Your task to perform on an android device: change alarm snooze length Image 0: 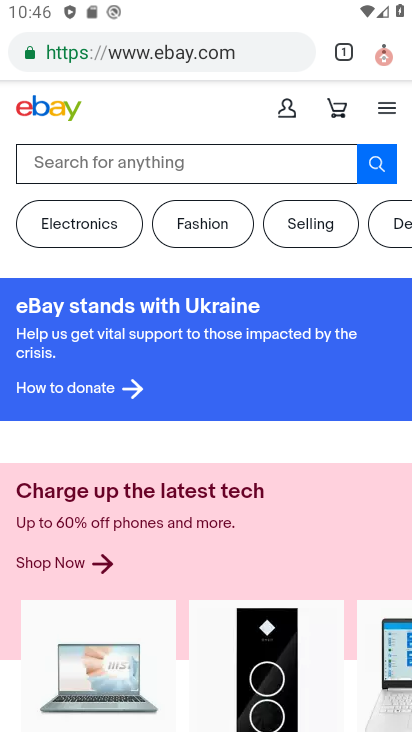
Step 0: press home button
Your task to perform on an android device: change alarm snooze length Image 1: 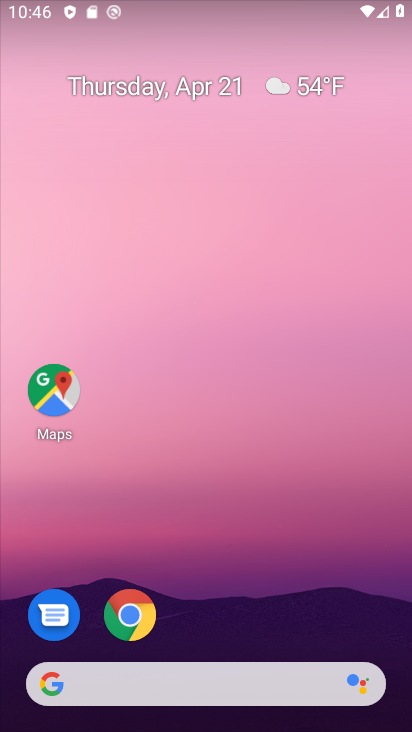
Step 1: drag from (285, 636) to (291, 161)
Your task to perform on an android device: change alarm snooze length Image 2: 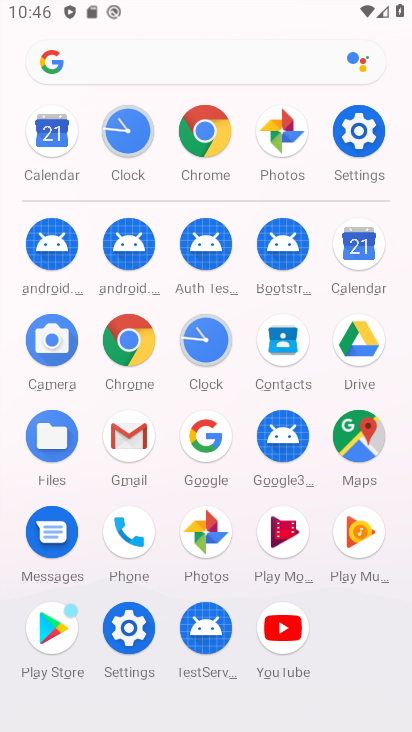
Step 2: click (199, 348)
Your task to perform on an android device: change alarm snooze length Image 3: 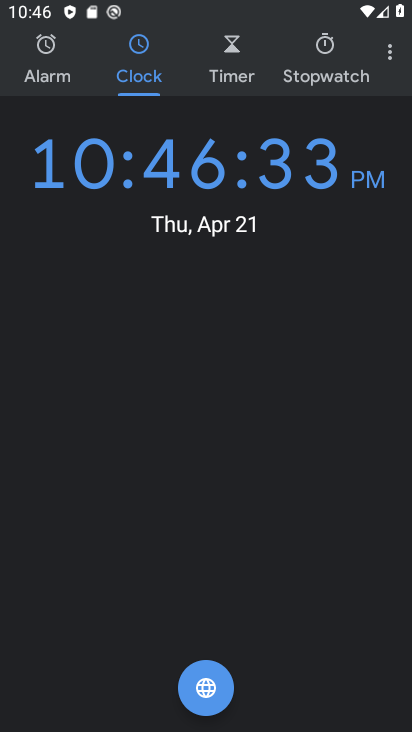
Step 3: click (391, 59)
Your task to perform on an android device: change alarm snooze length Image 4: 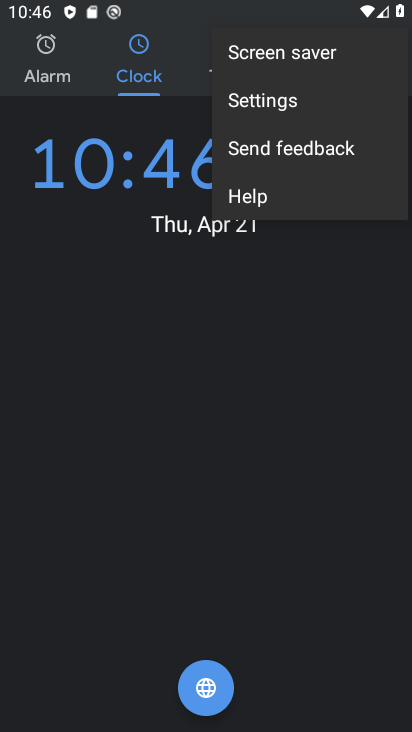
Step 4: click (353, 100)
Your task to perform on an android device: change alarm snooze length Image 5: 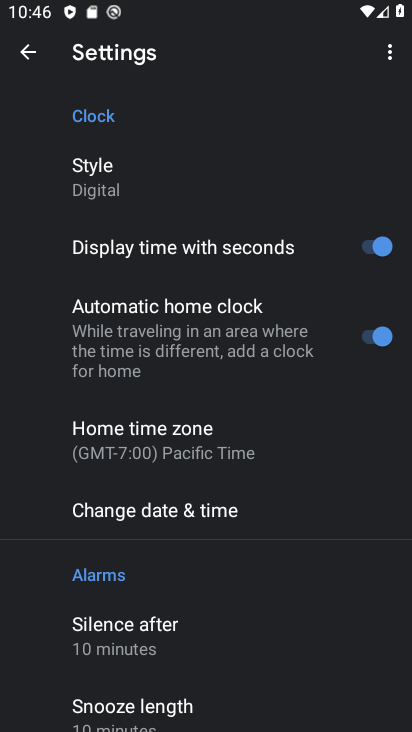
Step 5: drag from (279, 547) to (268, 463)
Your task to perform on an android device: change alarm snooze length Image 6: 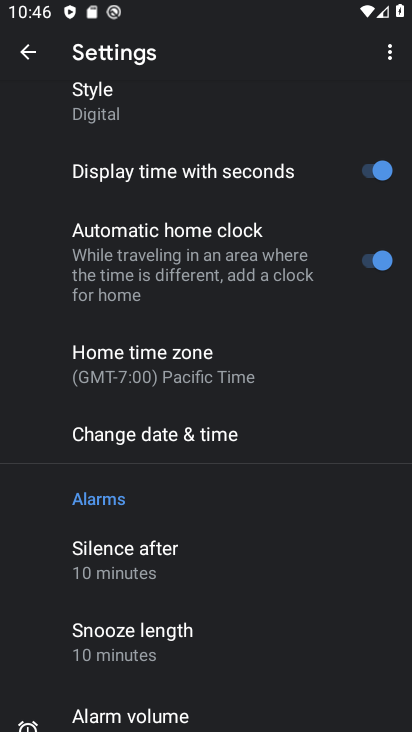
Step 6: click (179, 642)
Your task to perform on an android device: change alarm snooze length Image 7: 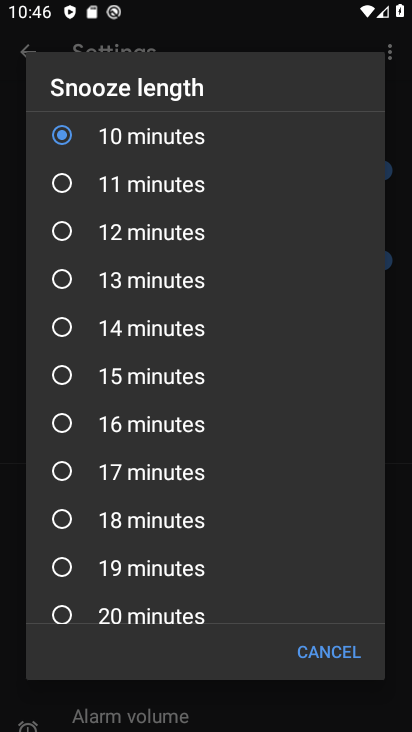
Step 7: click (172, 496)
Your task to perform on an android device: change alarm snooze length Image 8: 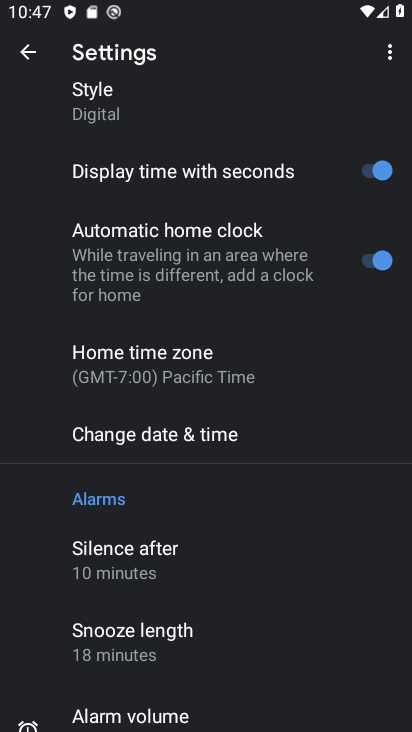
Step 8: task complete